Your task to perform on an android device: Open Maps and search for coffee Image 0: 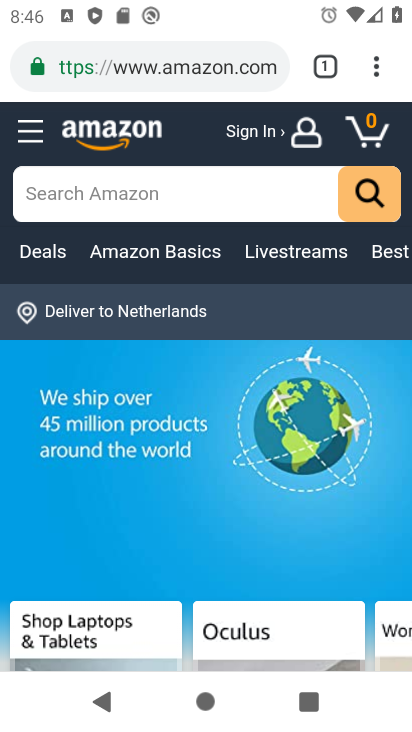
Step 0: press home button
Your task to perform on an android device: Open Maps and search for coffee Image 1: 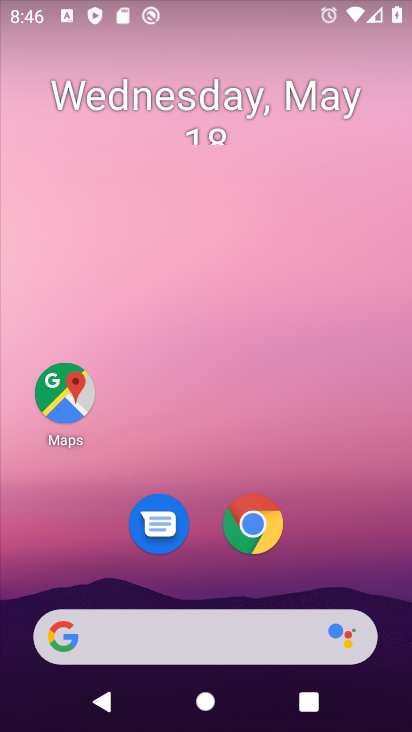
Step 1: click (74, 388)
Your task to perform on an android device: Open Maps and search for coffee Image 2: 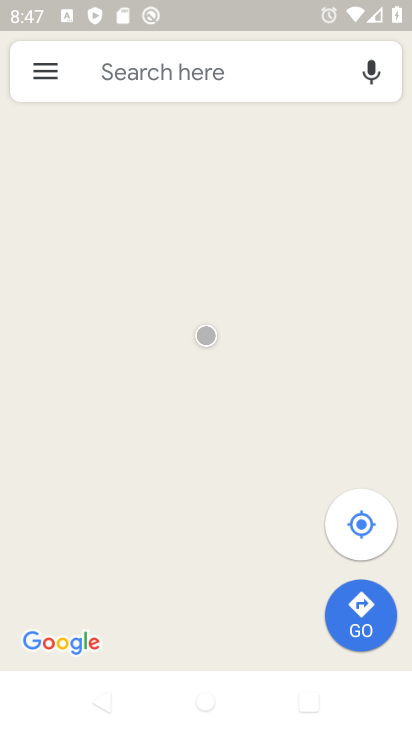
Step 2: click (168, 65)
Your task to perform on an android device: Open Maps and search for coffee Image 3: 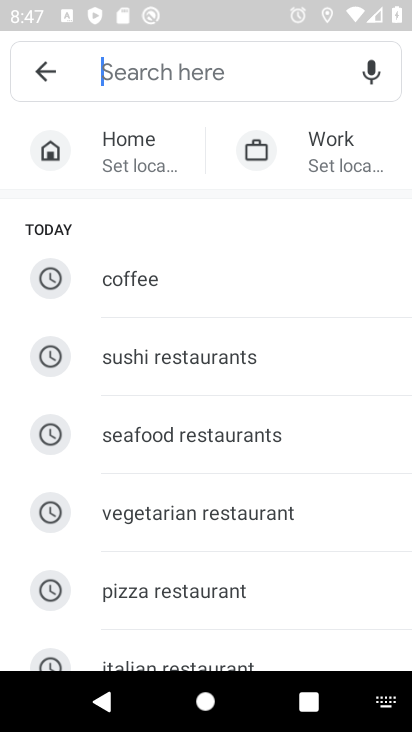
Step 3: click (157, 273)
Your task to perform on an android device: Open Maps and search for coffee Image 4: 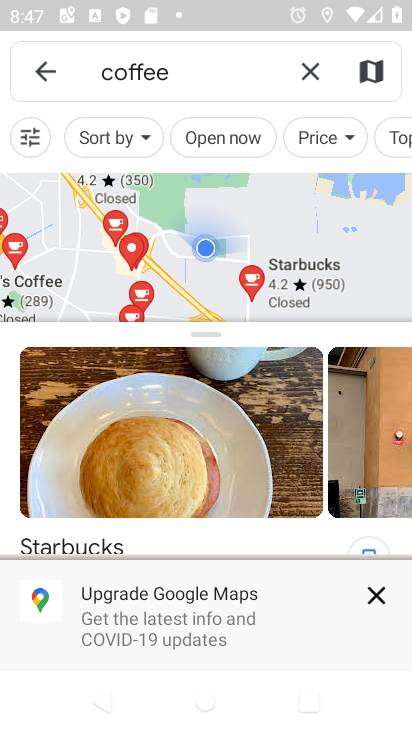
Step 4: task complete